Your task to perform on an android device: manage bookmarks in the chrome app Image 0: 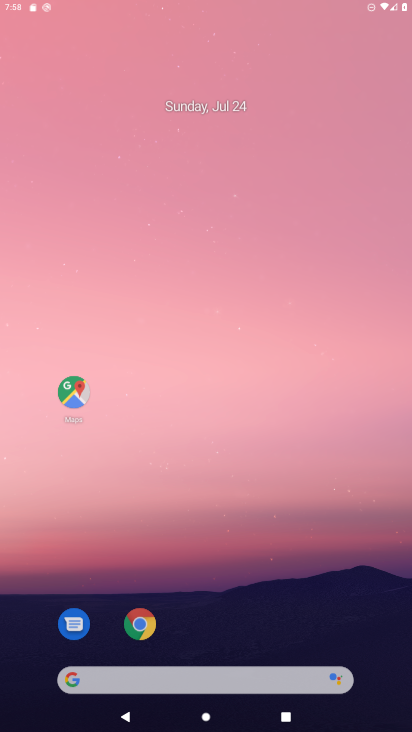
Step 0: drag from (383, 642) to (135, 2)
Your task to perform on an android device: manage bookmarks in the chrome app Image 1: 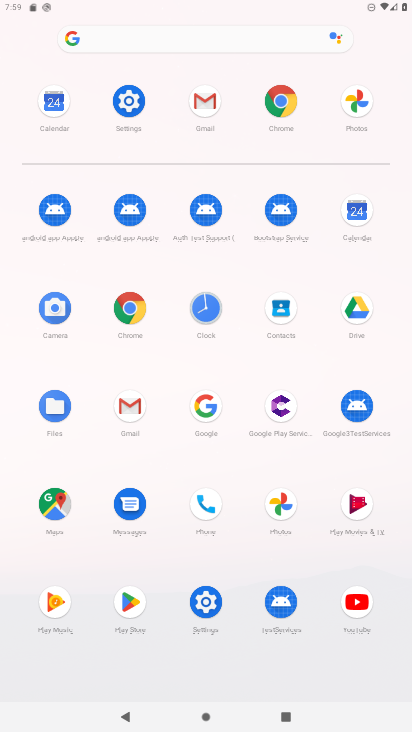
Step 1: click (129, 312)
Your task to perform on an android device: manage bookmarks in the chrome app Image 2: 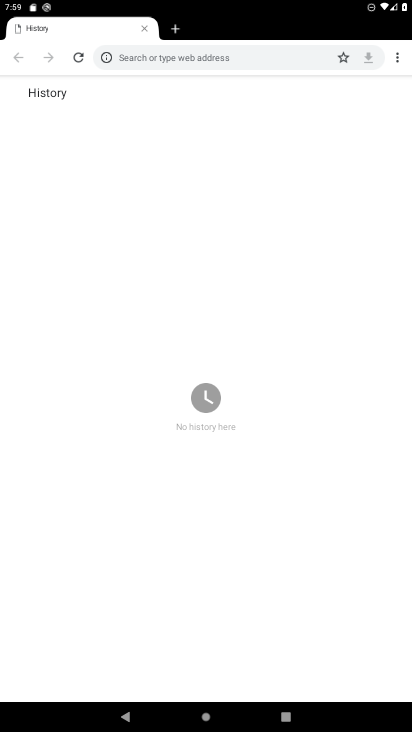
Step 2: task complete